Your task to perform on an android device: Open privacy settings Image 0: 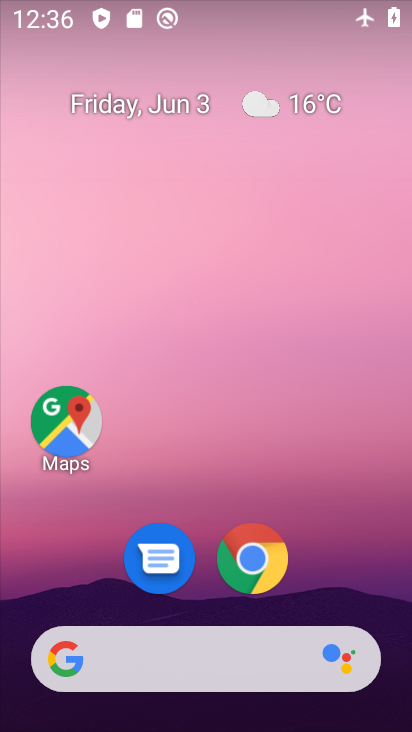
Step 0: drag from (341, 608) to (357, 316)
Your task to perform on an android device: Open privacy settings Image 1: 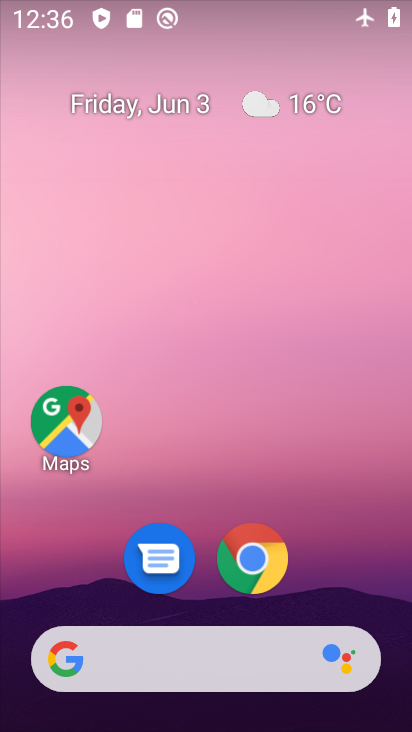
Step 1: drag from (368, 581) to (367, 154)
Your task to perform on an android device: Open privacy settings Image 2: 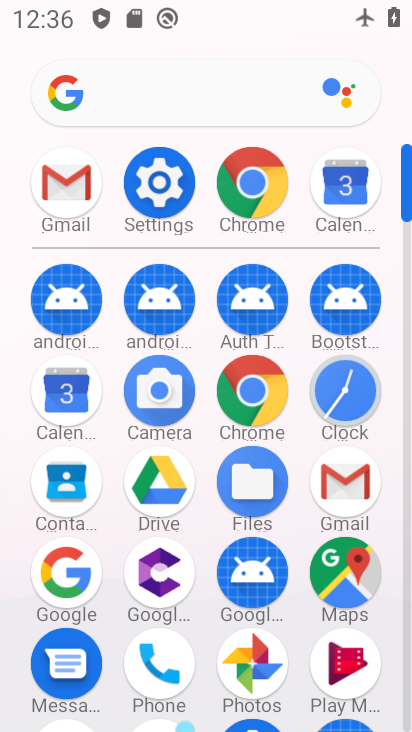
Step 2: click (172, 189)
Your task to perform on an android device: Open privacy settings Image 3: 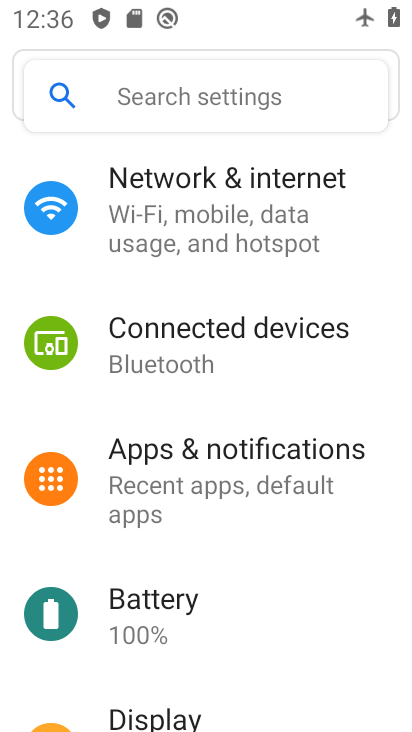
Step 3: drag from (370, 539) to (378, 482)
Your task to perform on an android device: Open privacy settings Image 4: 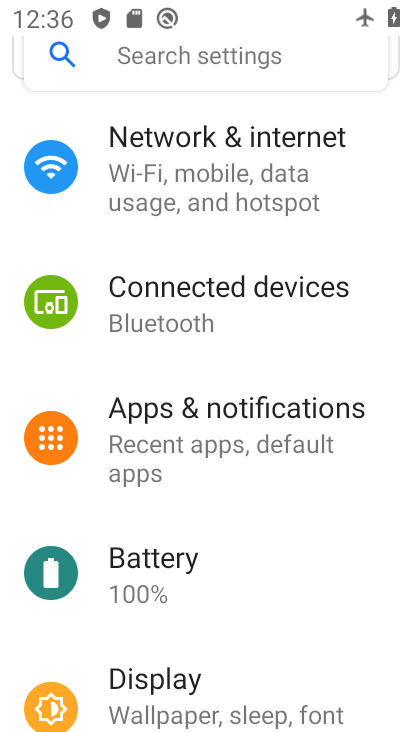
Step 4: drag from (374, 538) to (370, 488)
Your task to perform on an android device: Open privacy settings Image 5: 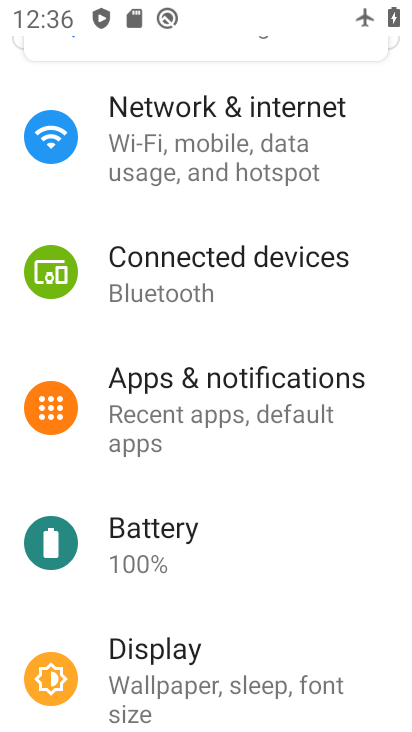
Step 5: drag from (344, 545) to (341, 497)
Your task to perform on an android device: Open privacy settings Image 6: 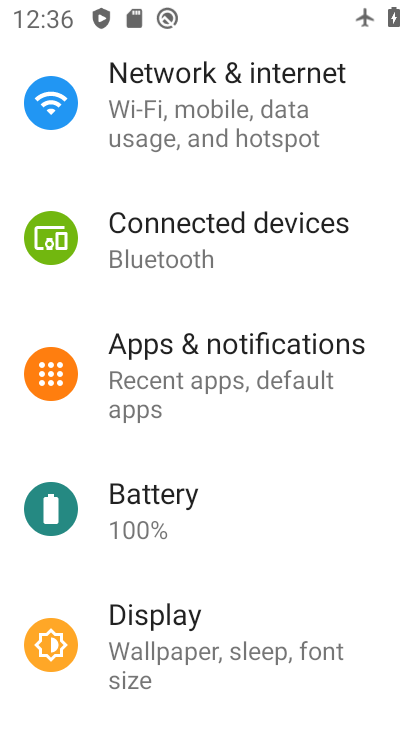
Step 6: click (314, 495)
Your task to perform on an android device: Open privacy settings Image 7: 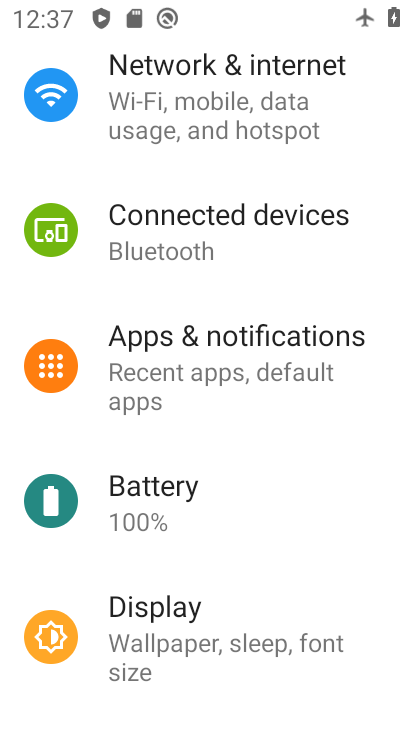
Step 7: drag from (311, 502) to (311, 436)
Your task to perform on an android device: Open privacy settings Image 8: 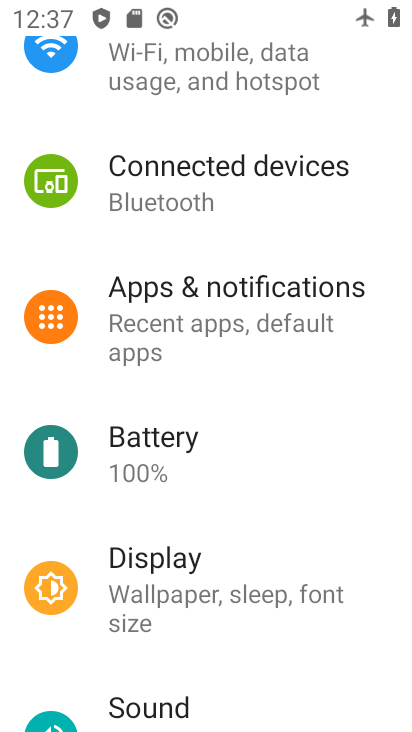
Step 8: drag from (302, 535) to (303, 468)
Your task to perform on an android device: Open privacy settings Image 9: 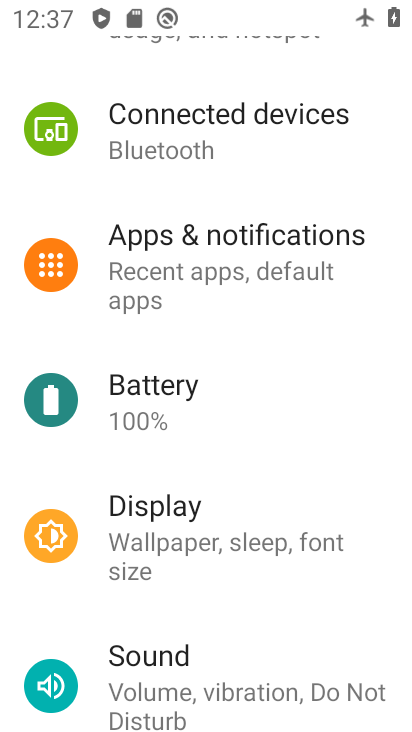
Step 9: drag from (329, 532) to (325, 495)
Your task to perform on an android device: Open privacy settings Image 10: 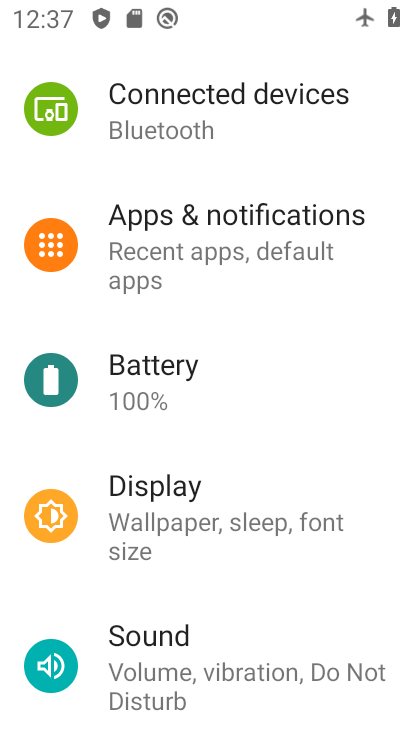
Step 10: drag from (334, 584) to (337, 506)
Your task to perform on an android device: Open privacy settings Image 11: 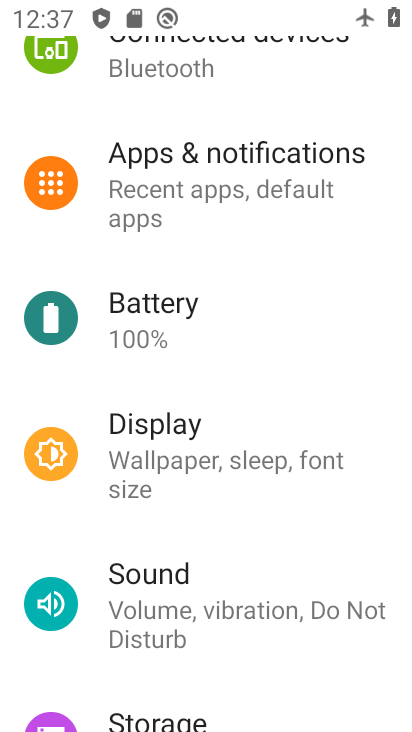
Step 11: drag from (315, 545) to (315, 463)
Your task to perform on an android device: Open privacy settings Image 12: 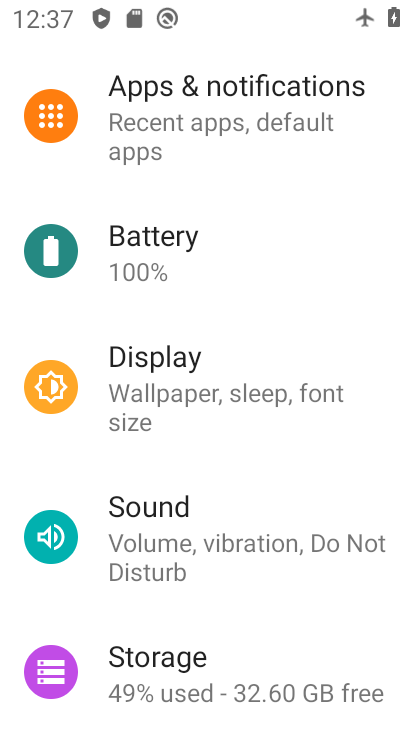
Step 12: click (299, 557)
Your task to perform on an android device: Open privacy settings Image 13: 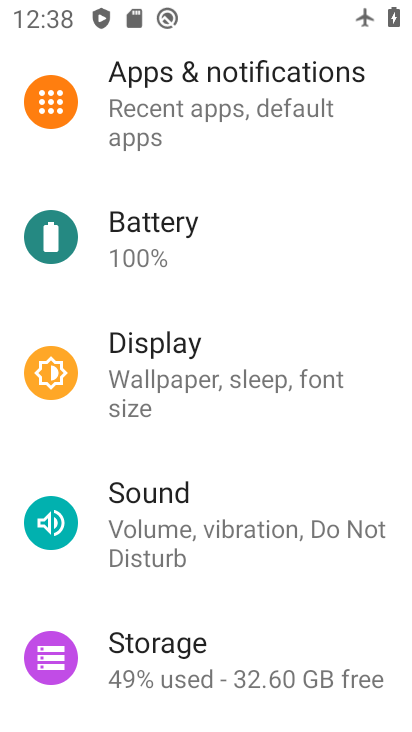
Step 13: drag from (290, 591) to (289, 526)
Your task to perform on an android device: Open privacy settings Image 14: 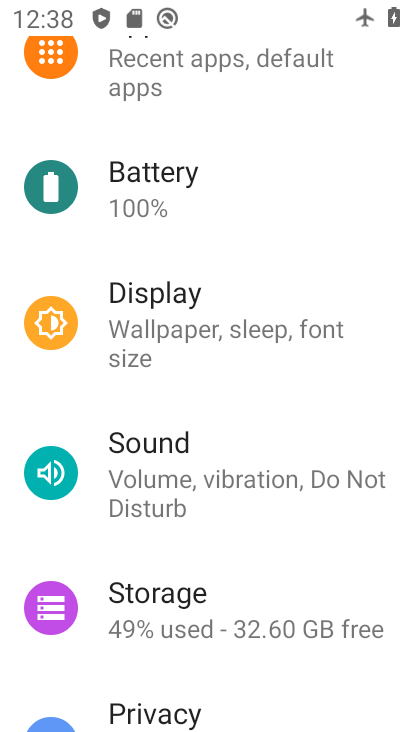
Step 14: drag from (289, 525) to (293, 421)
Your task to perform on an android device: Open privacy settings Image 15: 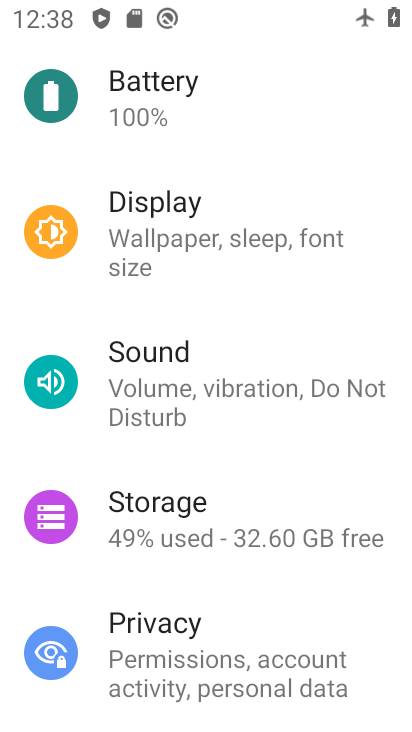
Step 15: drag from (319, 589) to (340, 423)
Your task to perform on an android device: Open privacy settings Image 16: 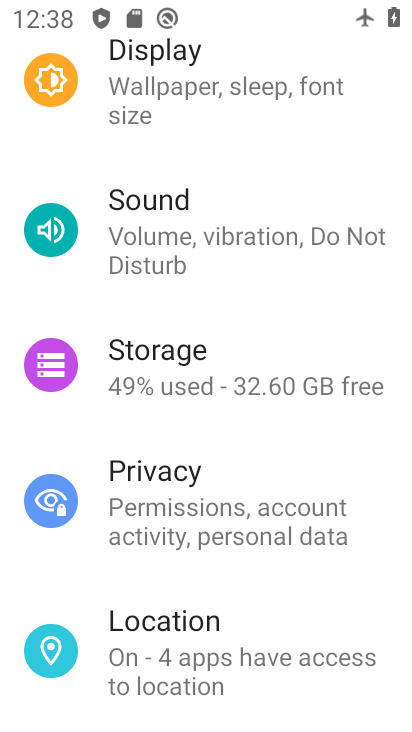
Step 16: drag from (357, 590) to (352, 490)
Your task to perform on an android device: Open privacy settings Image 17: 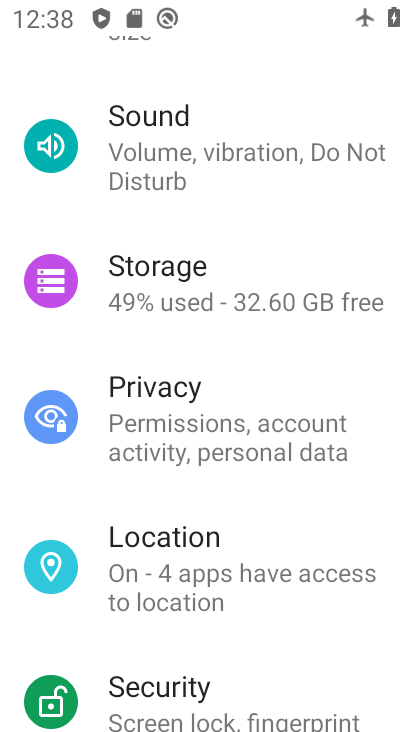
Step 17: drag from (338, 577) to (328, 478)
Your task to perform on an android device: Open privacy settings Image 18: 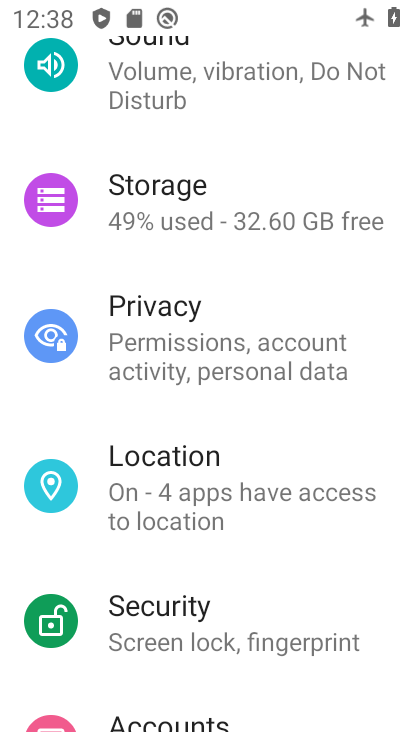
Step 18: click (274, 373)
Your task to perform on an android device: Open privacy settings Image 19: 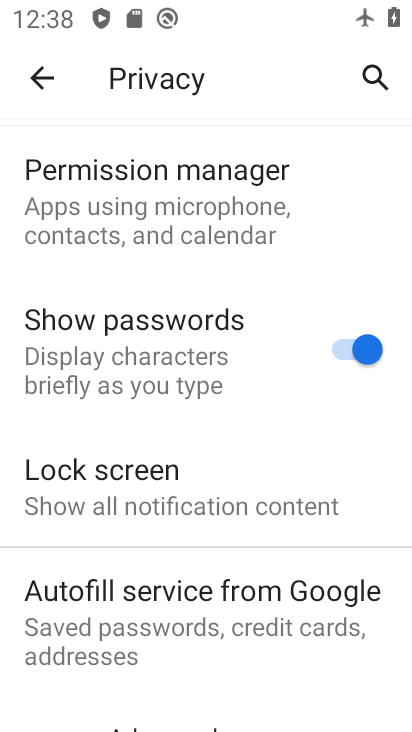
Step 19: task complete